Your task to perform on an android device: Open Youtube and go to "Your channel" Image 0: 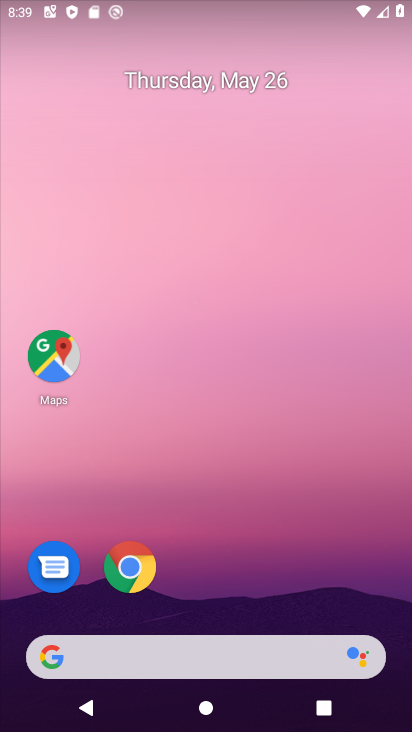
Step 0: drag from (177, 651) to (336, 83)
Your task to perform on an android device: Open Youtube and go to "Your channel" Image 1: 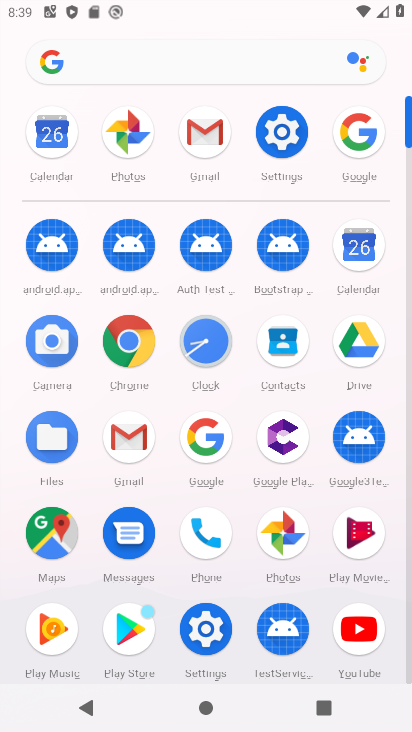
Step 1: click (365, 627)
Your task to perform on an android device: Open Youtube and go to "Your channel" Image 2: 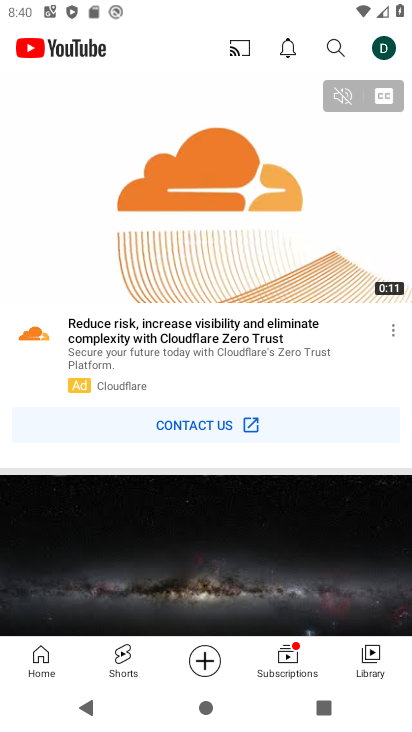
Step 2: click (372, 665)
Your task to perform on an android device: Open Youtube and go to "Your channel" Image 3: 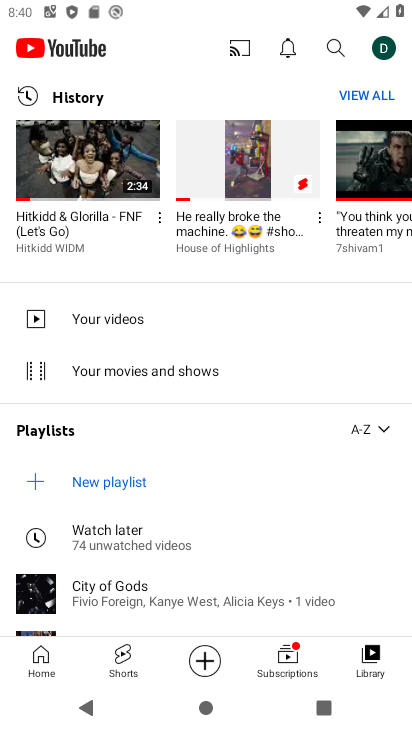
Step 3: click (381, 50)
Your task to perform on an android device: Open Youtube and go to "Your channel" Image 4: 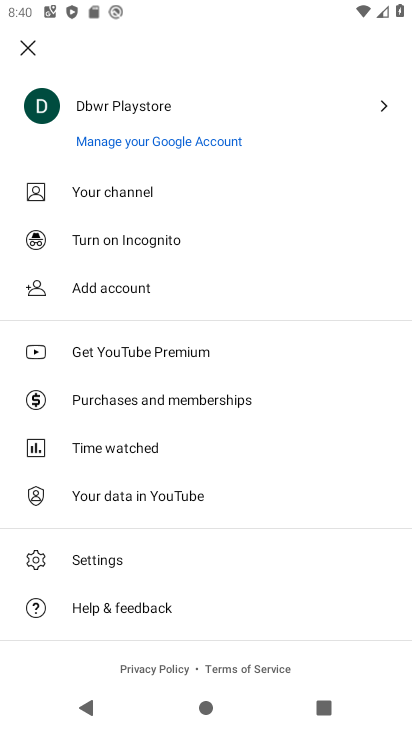
Step 4: click (114, 193)
Your task to perform on an android device: Open Youtube and go to "Your channel" Image 5: 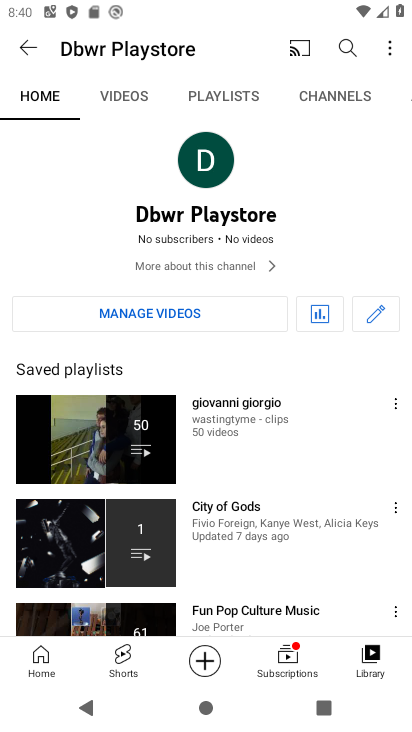
Step 5: task complete